Your task to perform on an android device: change text size in settings app Image 0: 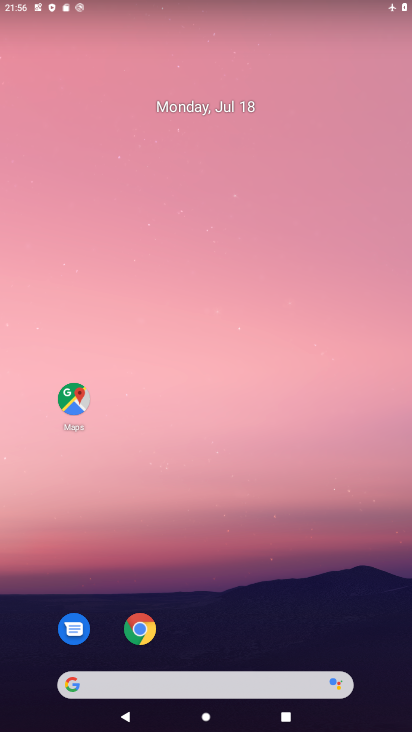
Step 0: drag from (330, 584) to (260, 0)
Your task to perform on an android device: change text size in settings app Image 1: 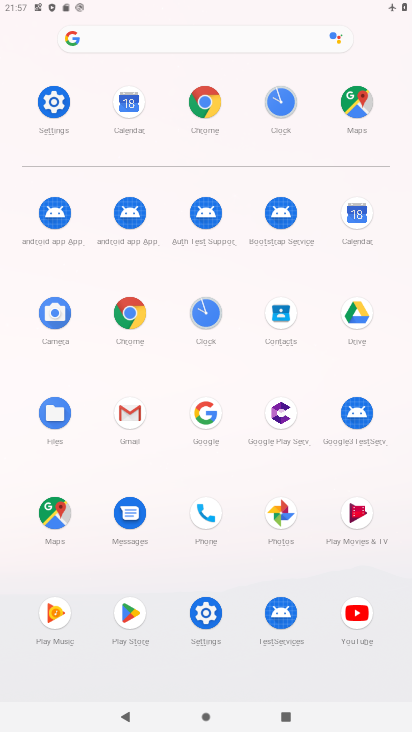
Step 1: click (53, 92)
Your task to perform on an android device: change text size in settings app Image 2: 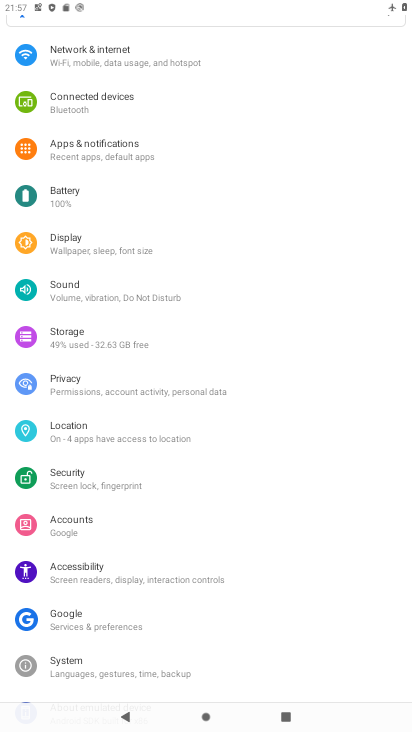
Step 2: click (104, 244)
Your task to perform on an android device: change text size in settings app Image 3: 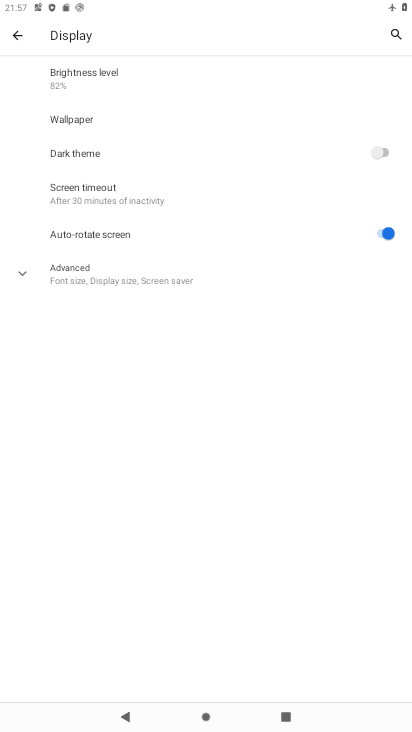
Step 3: click (123, 283)
Your task to perform on an android device: change text size in settings app Image 4: 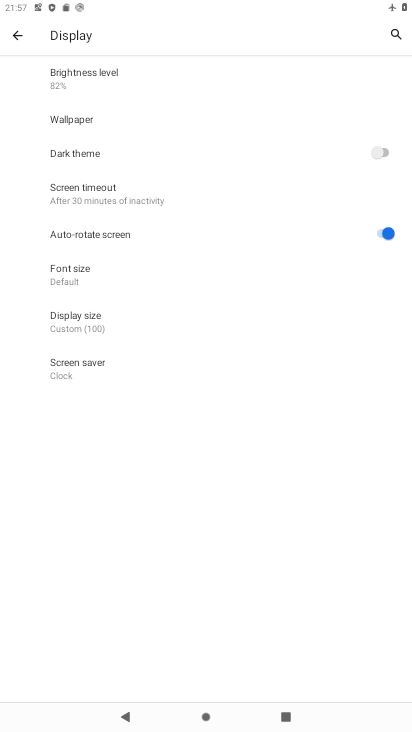
Step 4: task complete